Your task to perform on an android device: turn off sleep mode Image 0: 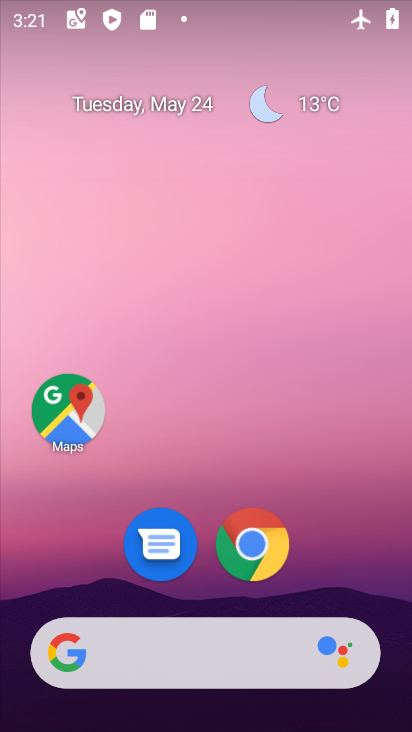
Step 0: drag from (349, 526) to (297, 61)
Your task to perform on an android device: turn off sleep mode Image 1: 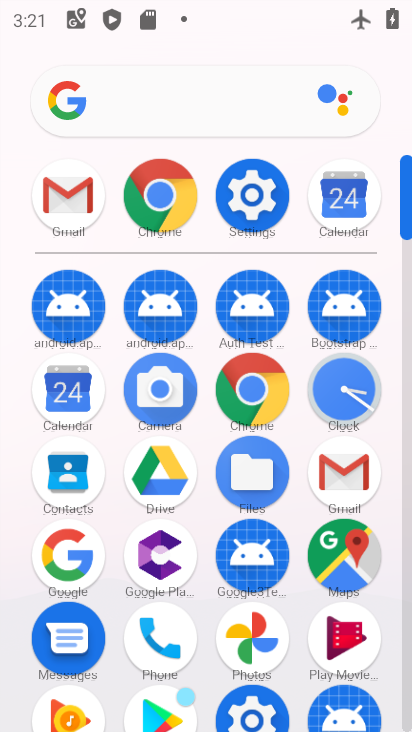
Step 1: click (263, 209)
Your task to perform on an android device: turn off sleep mode Image 2: 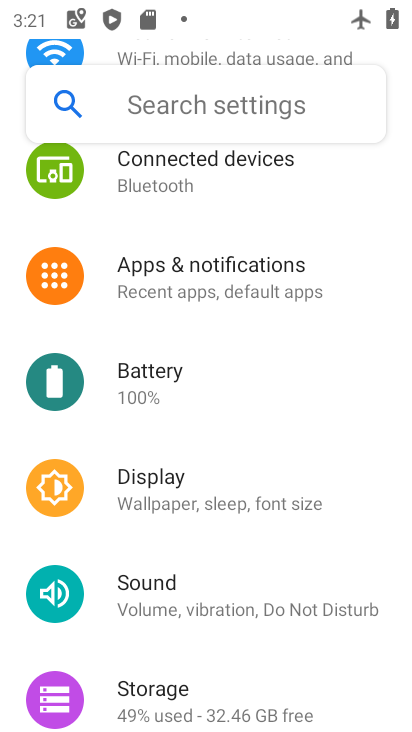
Step 2: click (177, 493)
Your task to perform on an android device: turn off sleep mode Image 3: 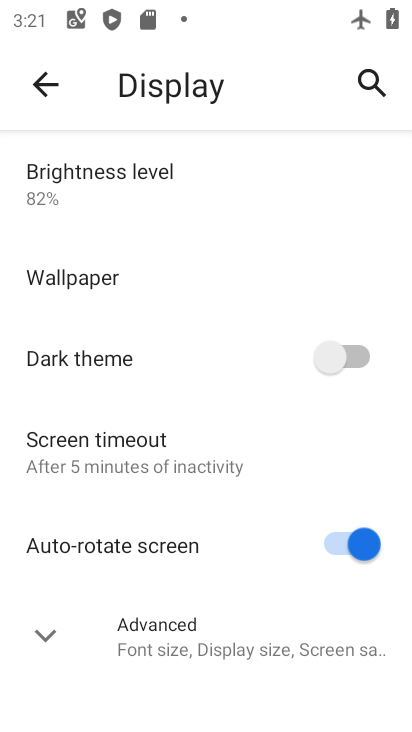
Step 3: click (149, 466)
Your task to perform on an android device: turn off sleep mode Image 4: 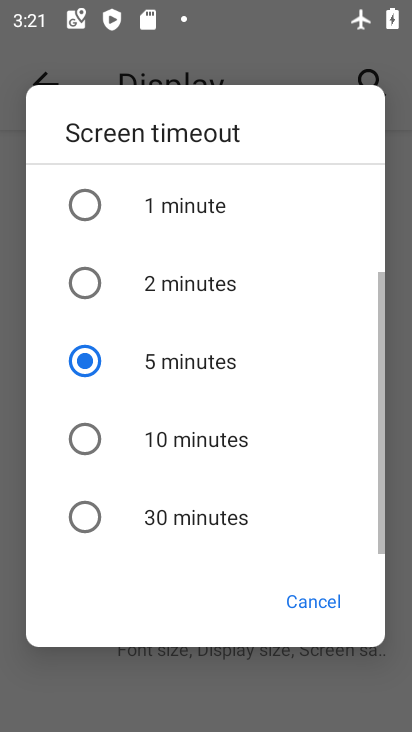
Step 4: task complete